Your task to perform on an android device: change notifications settings Image 0: 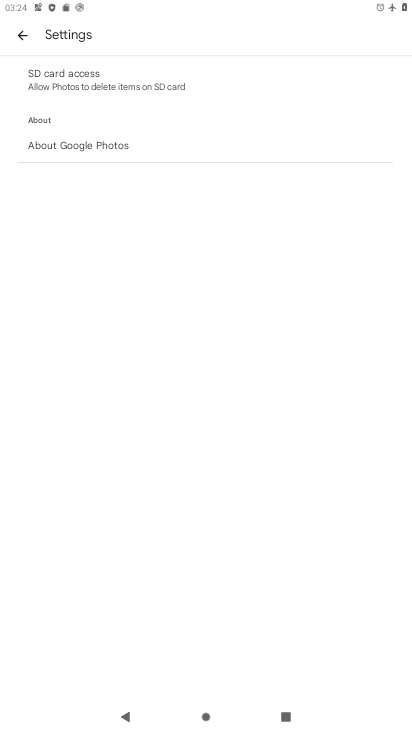
Step 0: press home button
Your task to perform on an android device: change notifications settings Image 1: 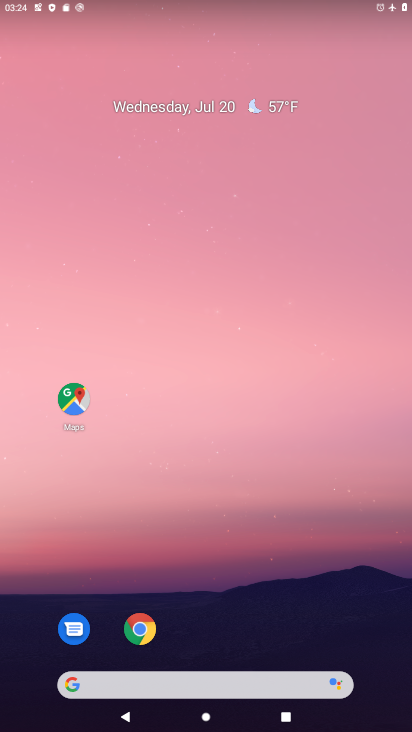
Step 1: drag from (391, 663) to (345, 93)
Your task to perform on an android device: change notifications settings Image 2: 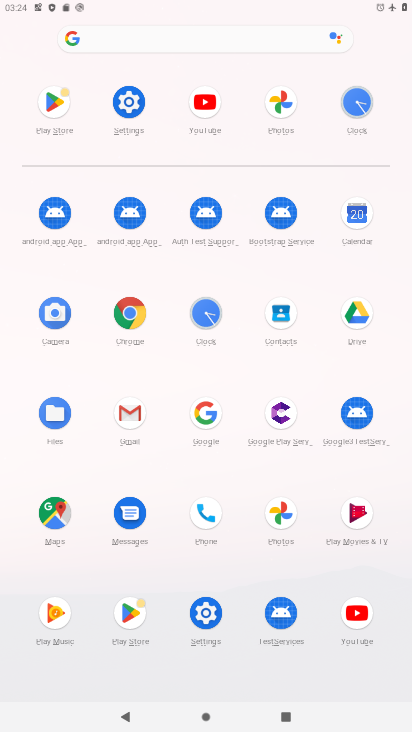
Step 2: click (205, 616)
Your task to perform on an android device: change notifications settings Image 3: 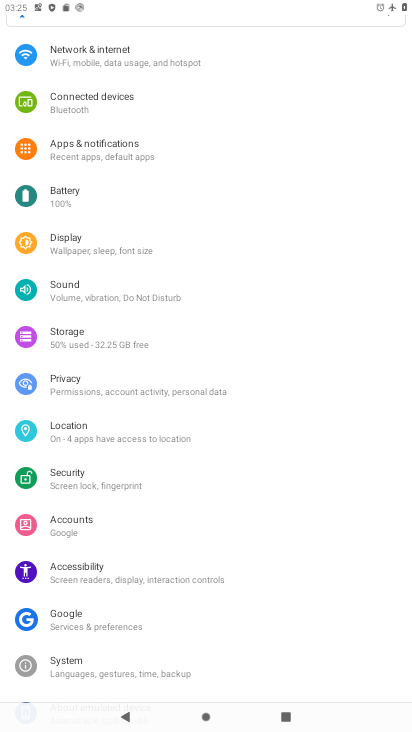
Step 3: click (98, 144)
Your task to perform on an android device: change notifications settings Image 4: 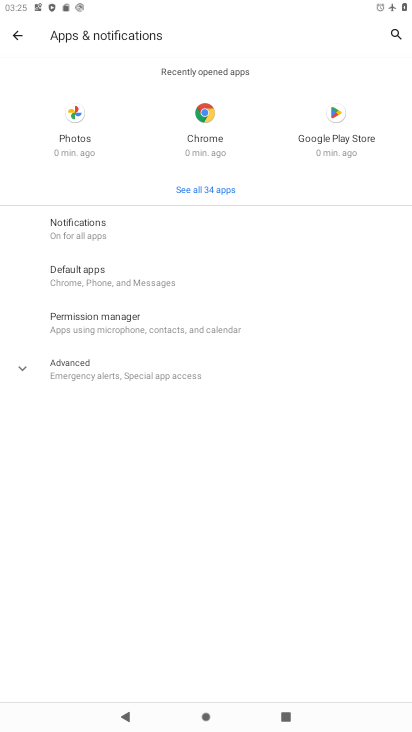
Step 4: click (64, 221)
Your task to perform on an android device: change notifications settings Image 5: 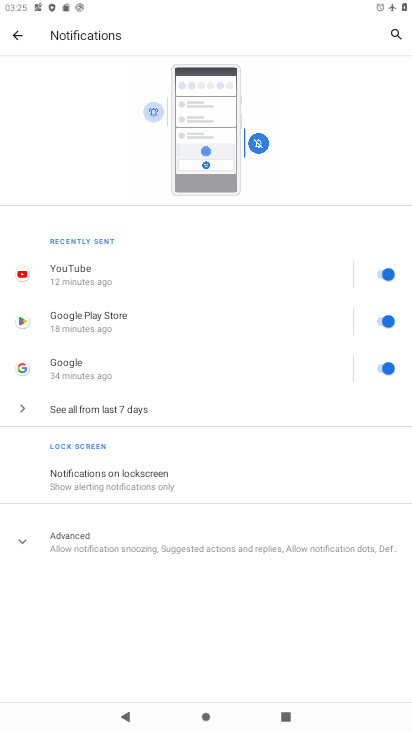
Step 5: click (24, 535)
Your task to perform on an android device: change notifications settings Image 6: 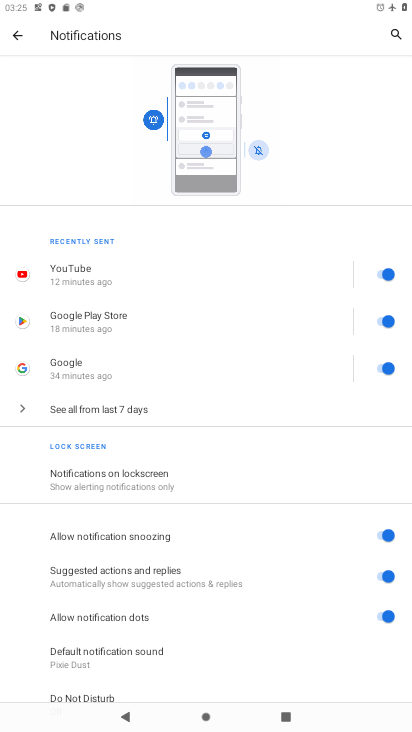
Step 6: task complete